Your task to perform on an android device: Open Yahoo.com Image 0: 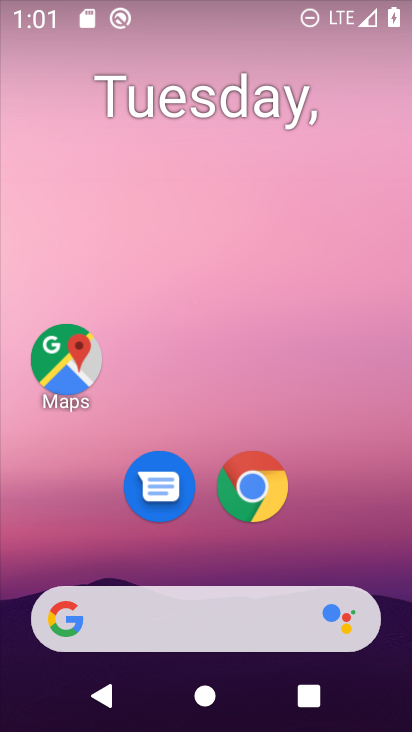
Step 0: press home button
Your task to perform on an android device: Open Yahoo.com Image 1: 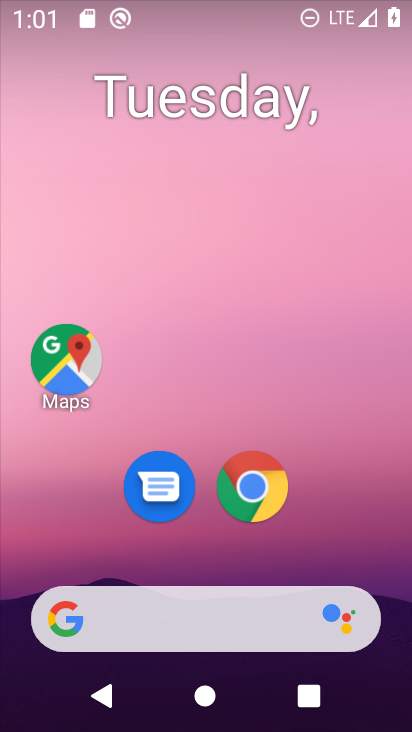
Step 1: click (251, 484)
Your task to perform on an android device: Open Yahoo.com Image 2: 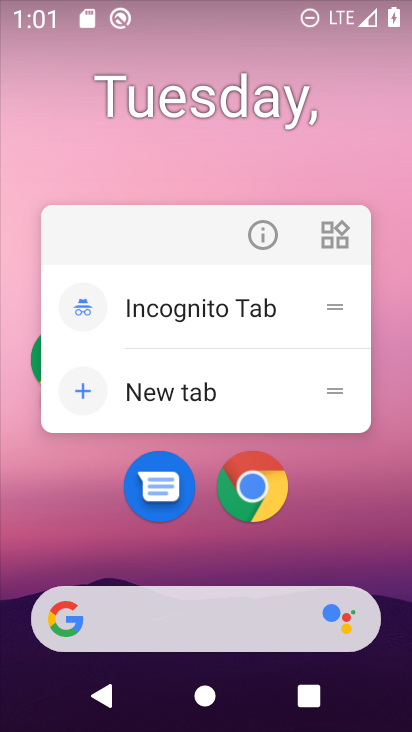
Step 2: click (251, 484)
Your task to perform on an android device: Open Yahoo.com Image 3: 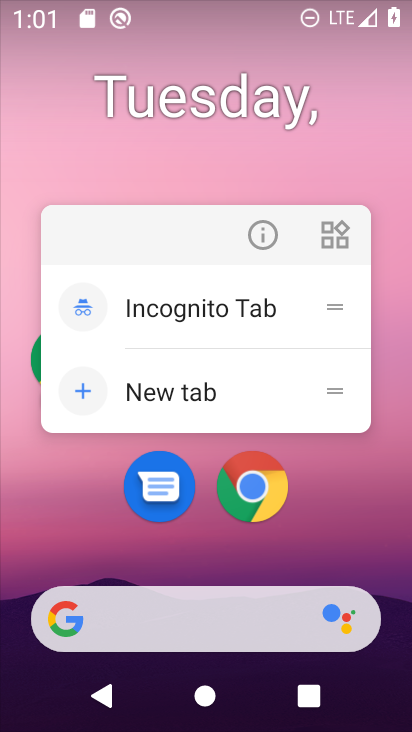
Step 3: click (251, 484)
Your task to perform on an android device: Open Yahoo.com Image 4: 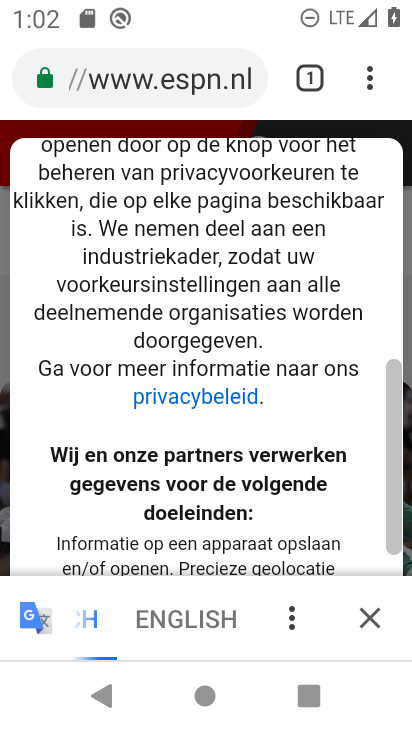
Step 4: click (319, 81)
Your task to perform on an android device: Open Yahoo.com Image 5: 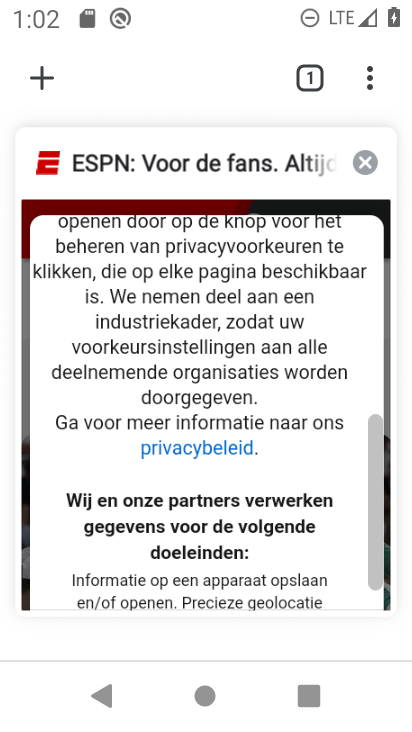
Step 5: click (359, 156)
Your task to perform on an android device: Open Yahoo.com Image 6: 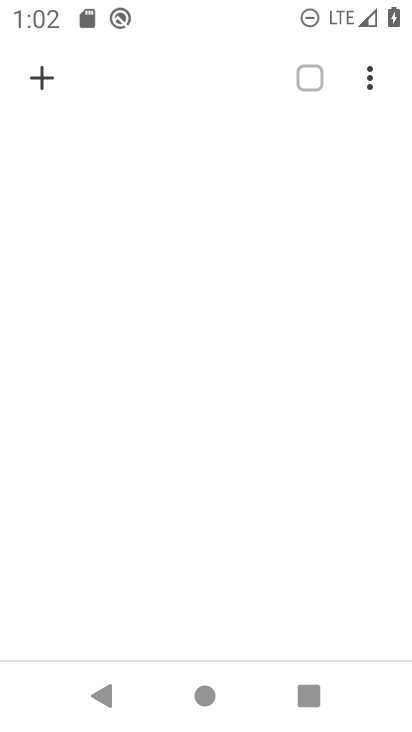
Step 6: click (36, 80)
Your task to perform on an android device: Open Yahoo.com Image 7: 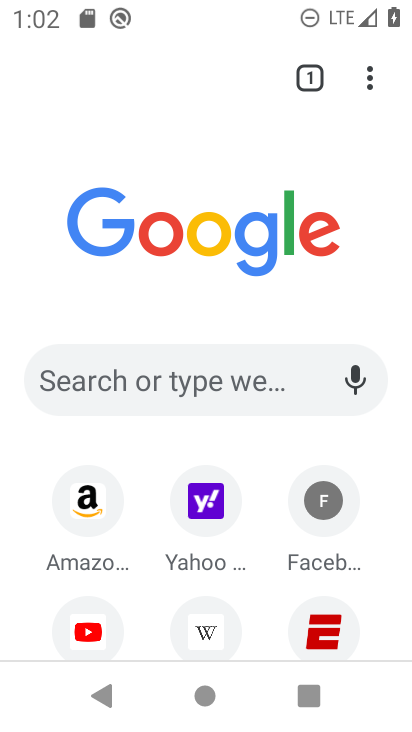
Step 7: click (209, 535)
Your task to perform on an android device: Open Yahoo.com Image 8: 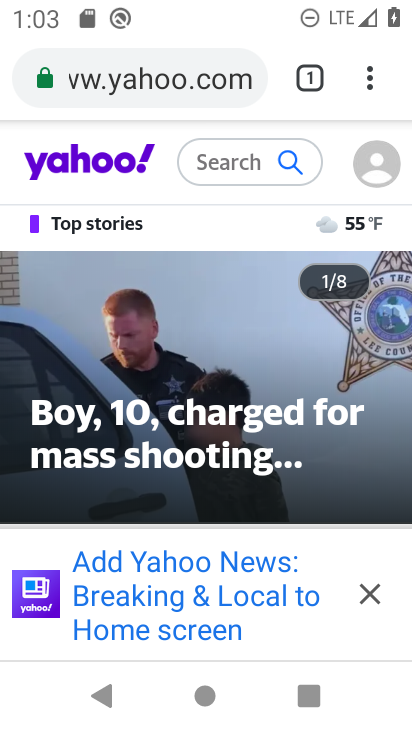
Step 8: task complete